Your task to perform on an android device: Open location settings Image 0: 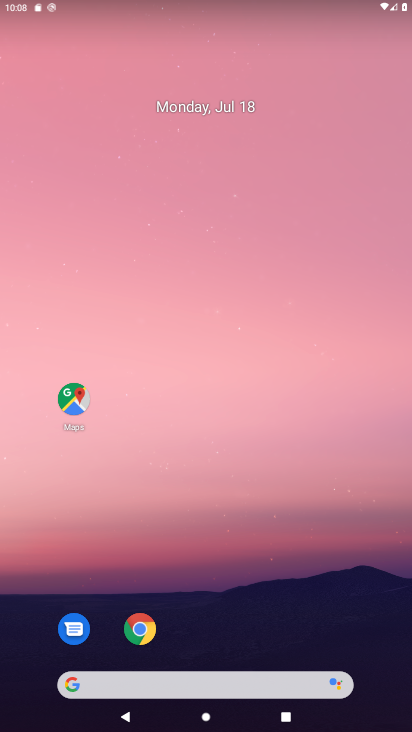
Step 0: drag from (298, 590) to (257, 36)
Your task to perform on an android device: Open location settings Image 1: 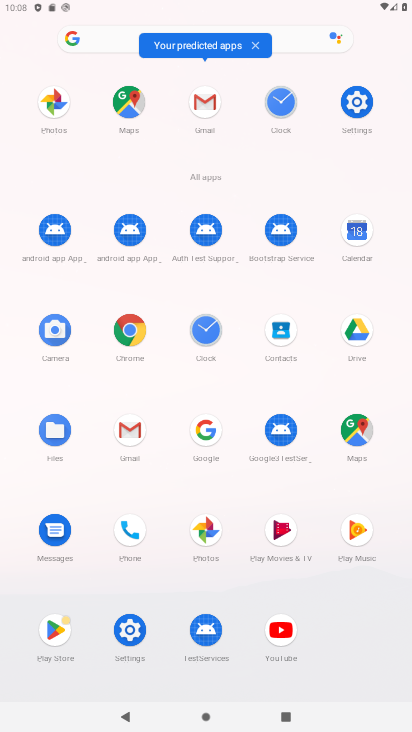
Step 1: click (353, 99)
Your task to perform on an android device: Open location settings Image 2: 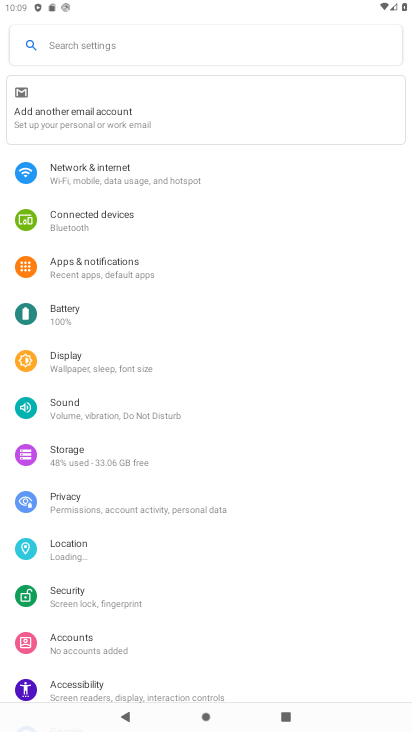
Step 2: click (135, 557)
Your task to perform on an android device: Open location settings Image 3: 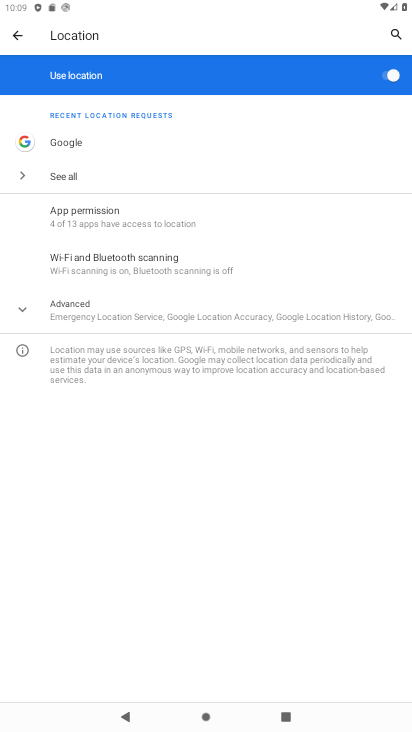
Step 3: task complete